Your task to perform on an android device: Go to Google Image 0: 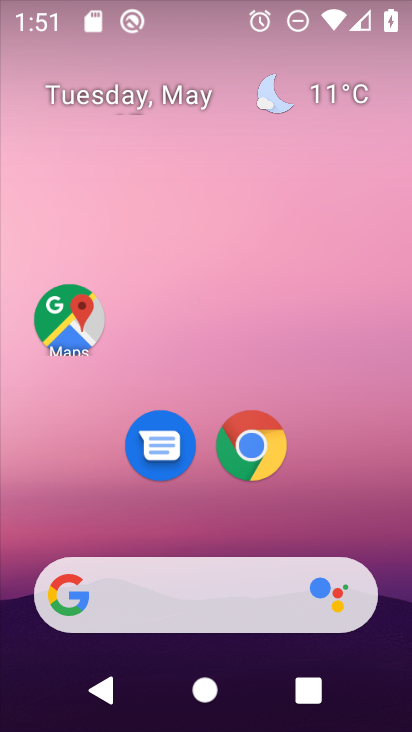
Step 0: drag from (357, 520) to (256, 44)
Your task to perform on an android device: Go to Google Image 1: 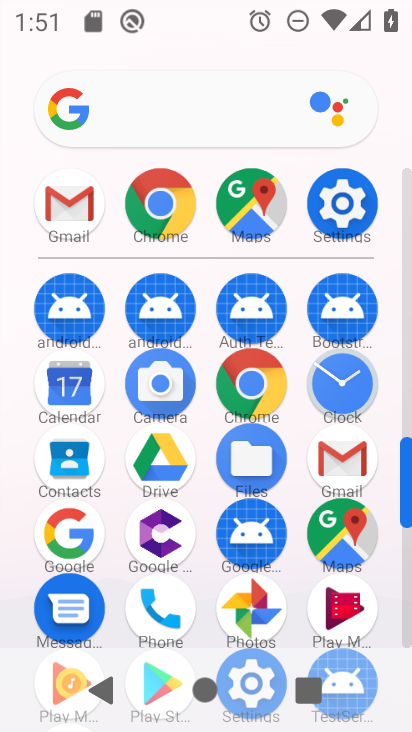
Step 1: click (71, 537)
Your task to perform on an android device: Go to Google Image 2: 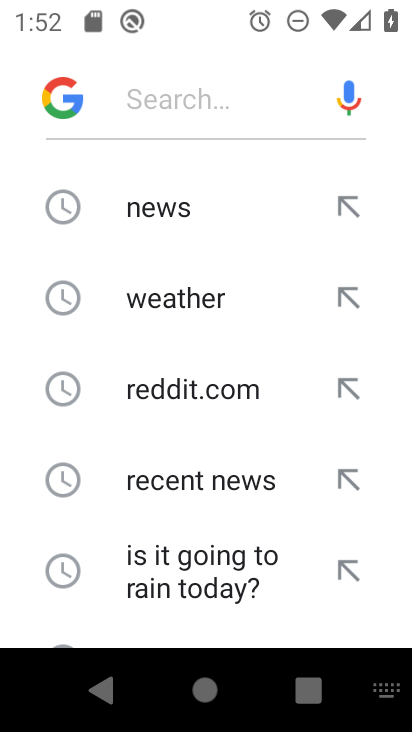
Step 2: task complete